Your task to perform on an android device: open app "Microsoft Excel" (install if not already installed) and enter user name: "kidnappers@icloud.com" and password: "Bessemerizes" Image 0: 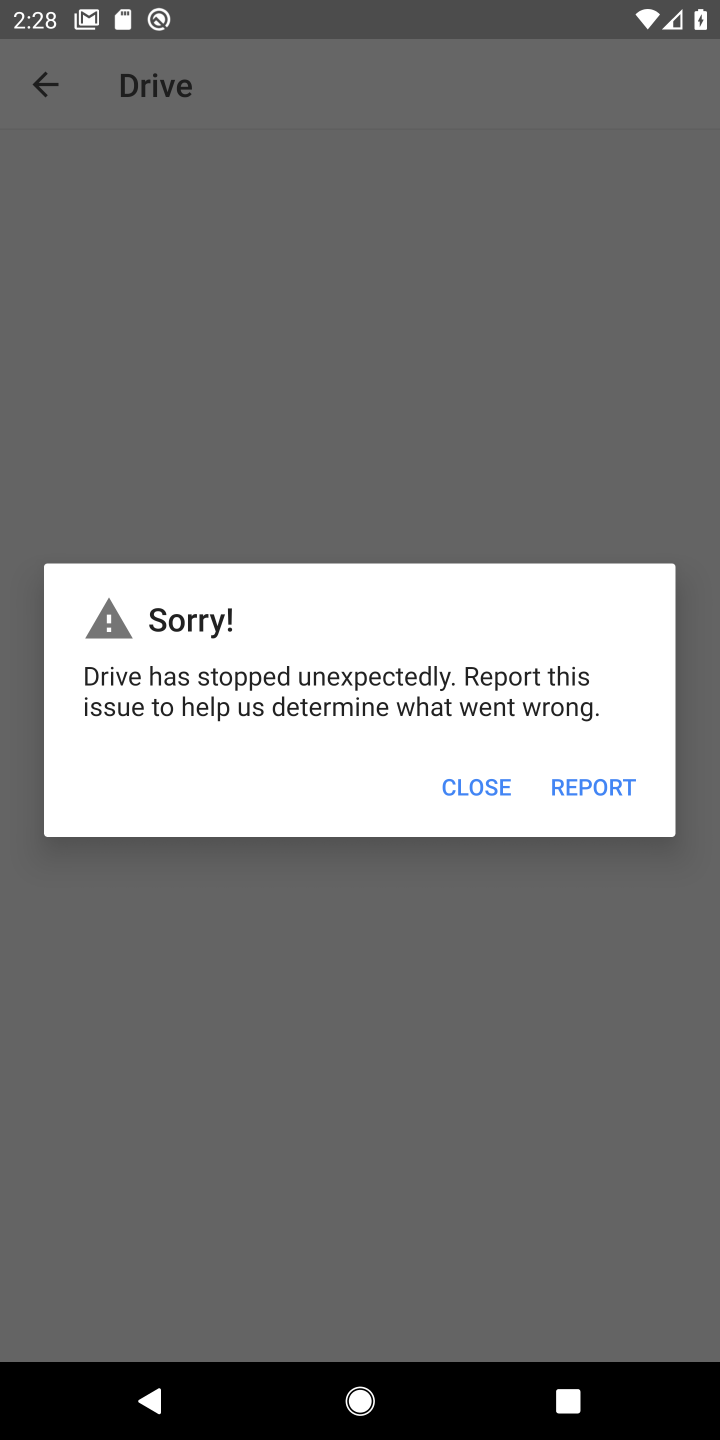
Step 0: press home button
Your task to perform on an android device: open app "Microsoft Excel" (install if not already installed) and enter user name: "kidnappers@icloud.com" and password: "Bessemerizes" Image 1: 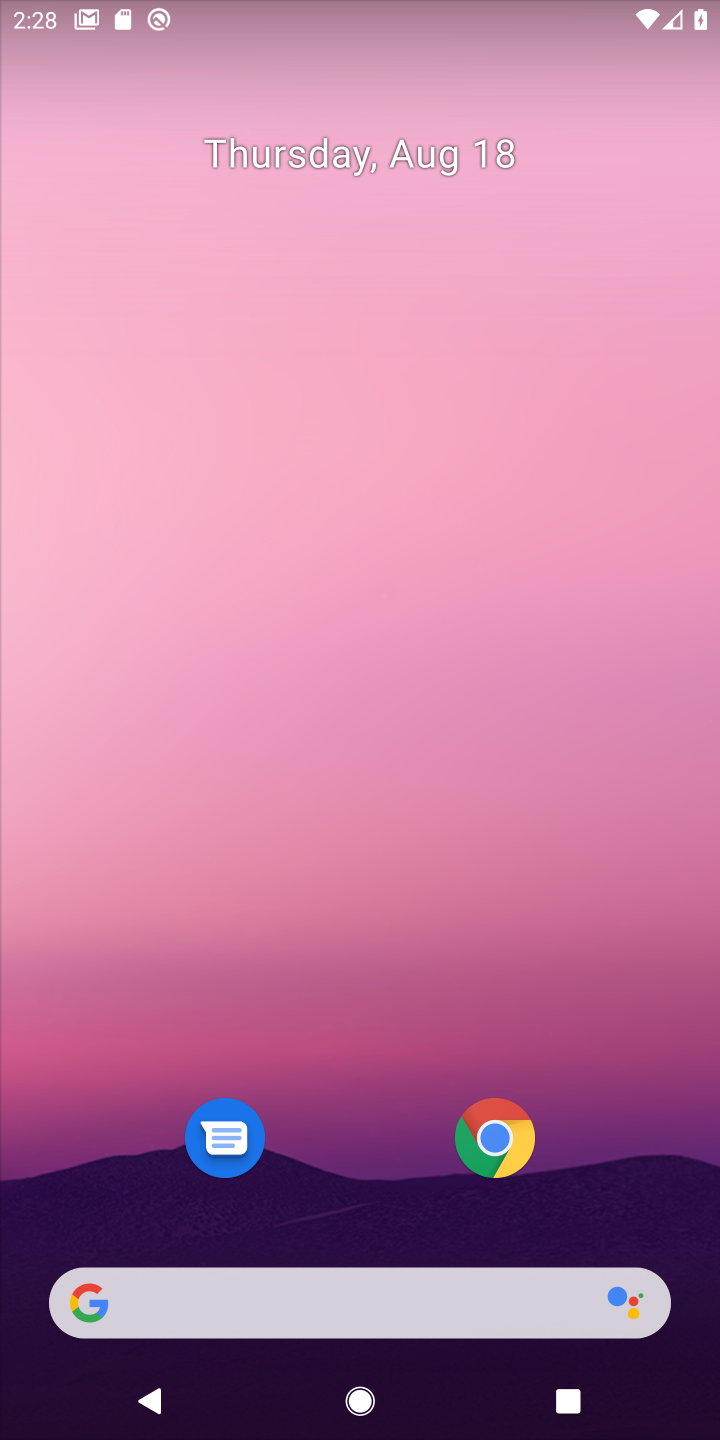
Step 1: drag from (455, 851) to (522, 73)
Your task to perform on an android device: open app "Microsoft Excel" (install if not already installed) and enter user name: "kidnappers@icloud.com" and password: "Bessemerizes" Image 2: 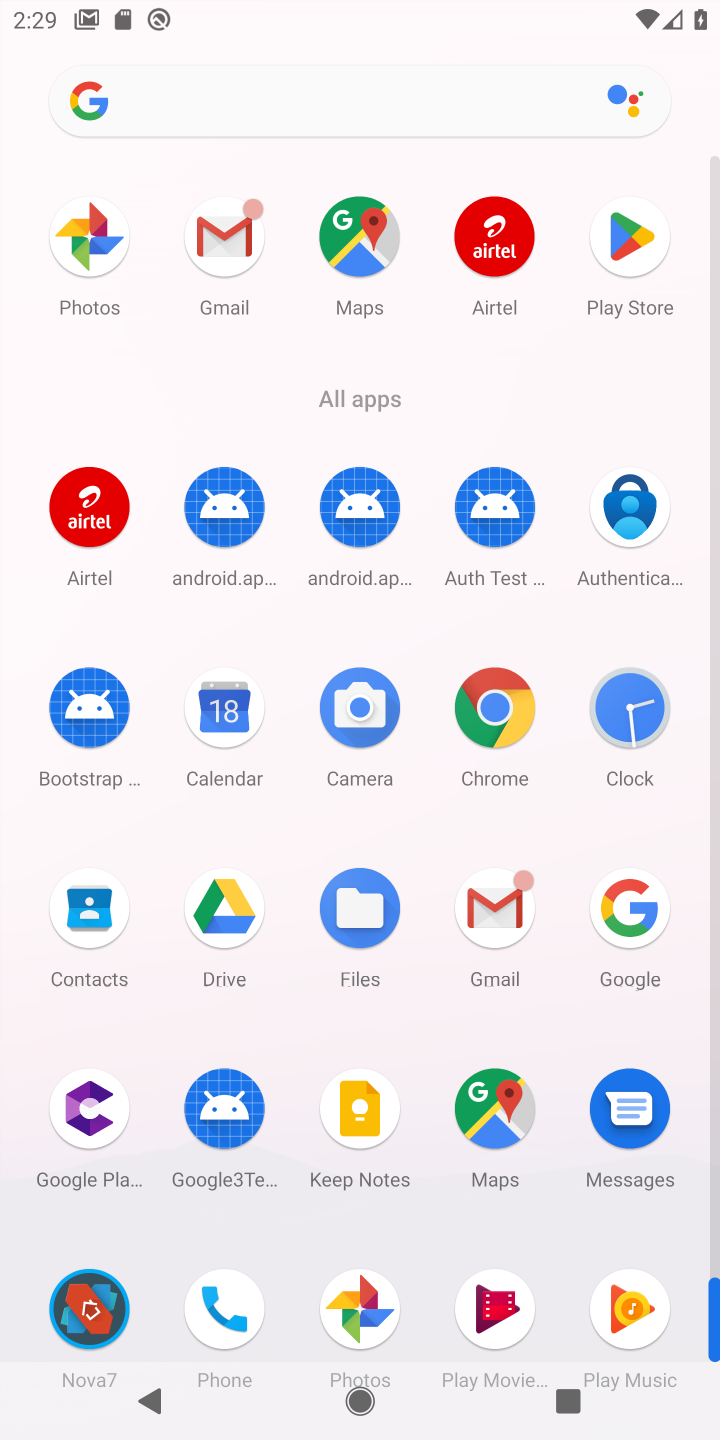
Step 2: click (638, 258)
Your task to perform on an android device: open app "Microsoft Excel" (install if not already installed) and enter user name: "kidnappers@icloud.com" and password: "Bessemerizes" Image 3: 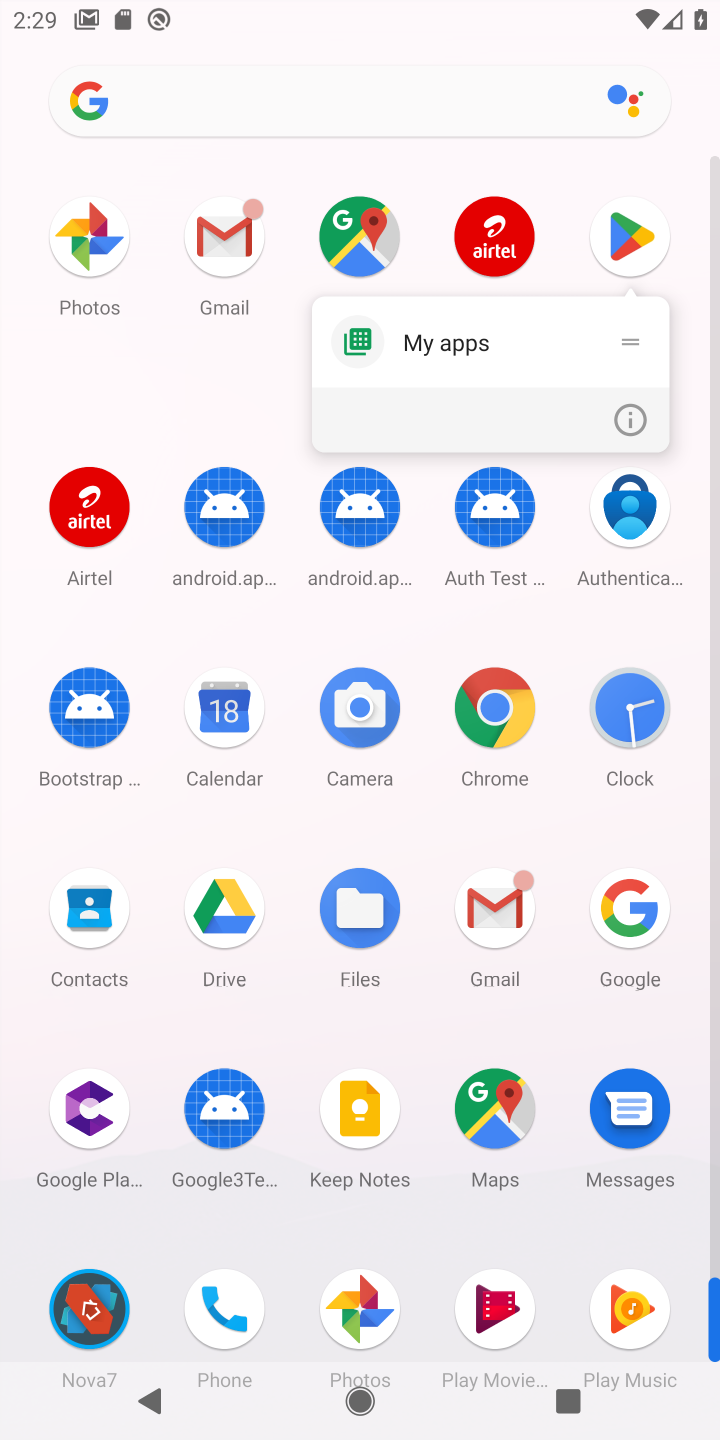
Step 3: click (649, 259)
Your task to perform on an android device: open app "Microsoft Excel" (install if not already installed) and enter user name: "kidnappers@icloud.com" and password: "Bessemerizes" Image 4: 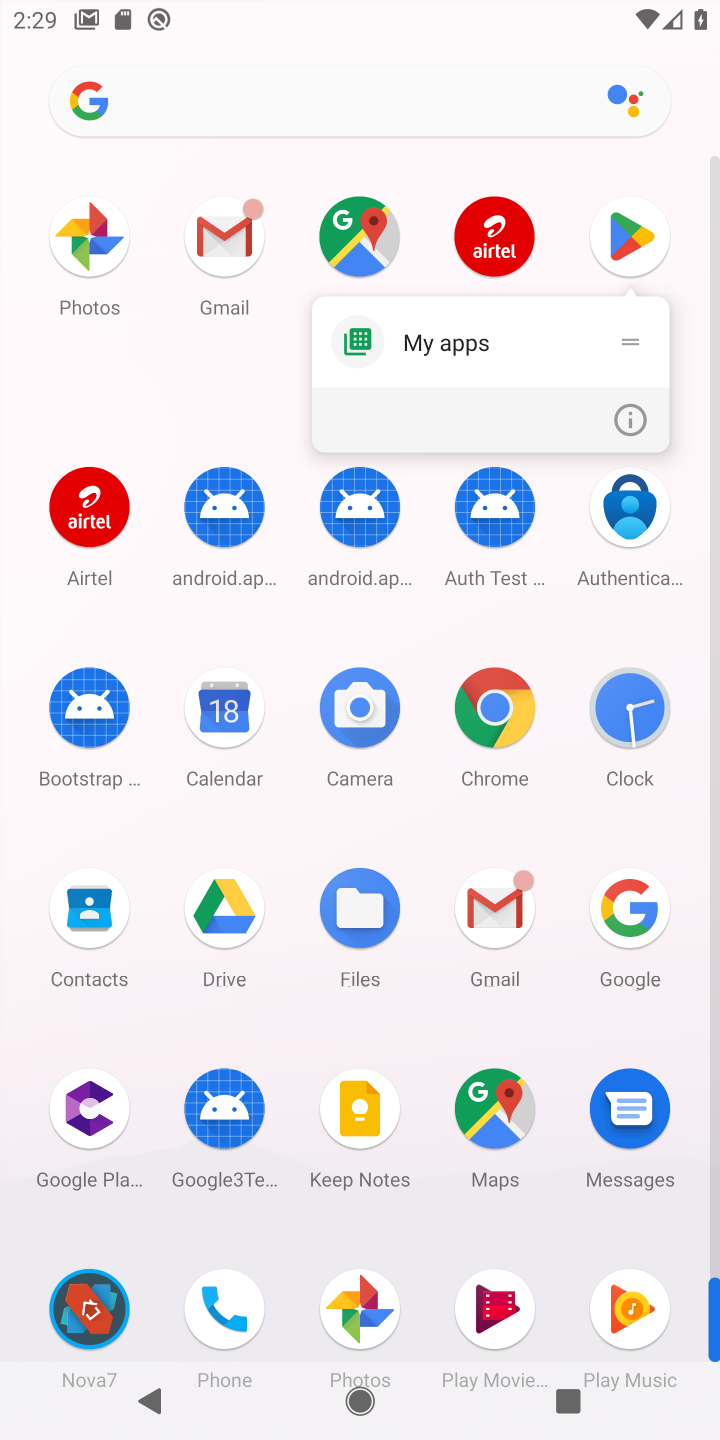
Step 4: click (647, 255)
Your task to perform on an android device: open app "Microsoft Excel" (install if not already installed) and enter user name: "kidnappers@icloud.com" and password: "Bessemerizes" Image 5: 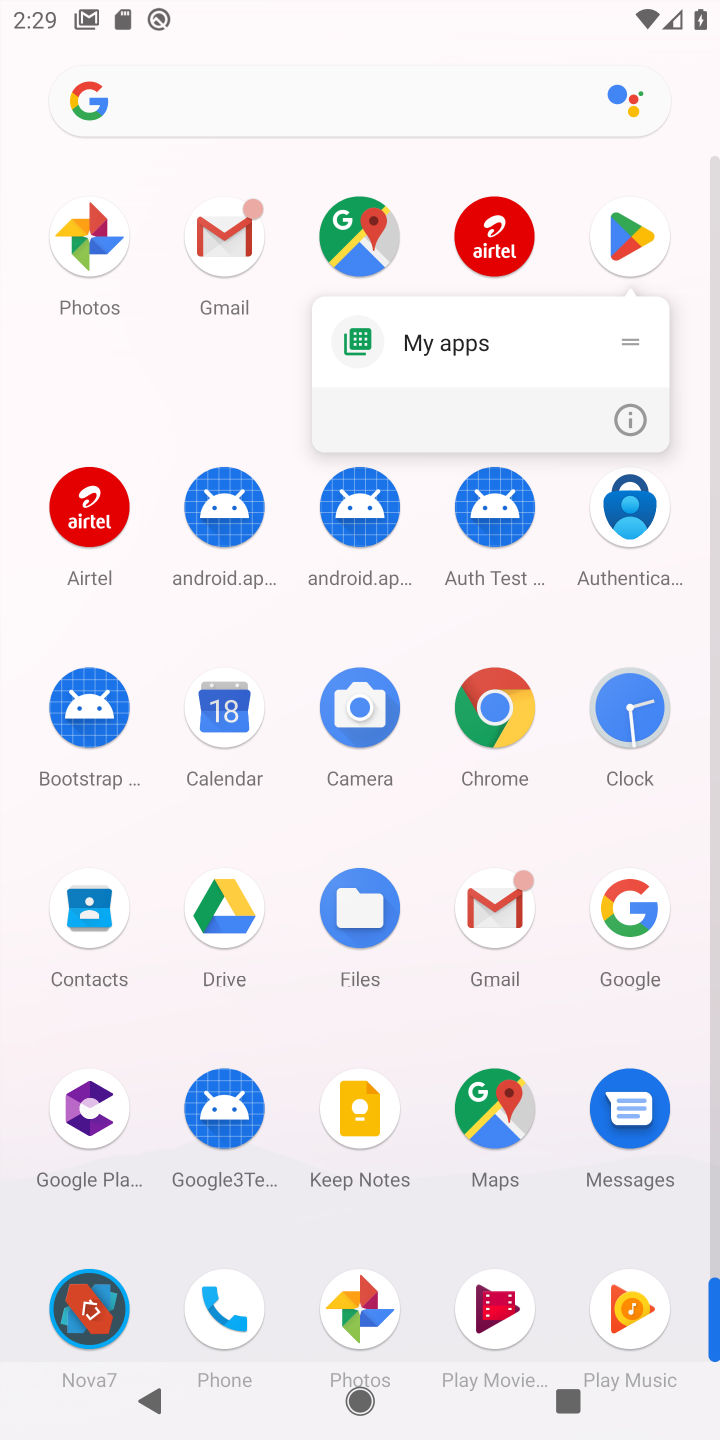
Step 5: click (647, 255)
Your task to perform on an android device: open app "Microsoft Excel" (install if not already installed) and enter user name: "kidnappers@icloud.com" and password: "Bessemerizes" Image 6: 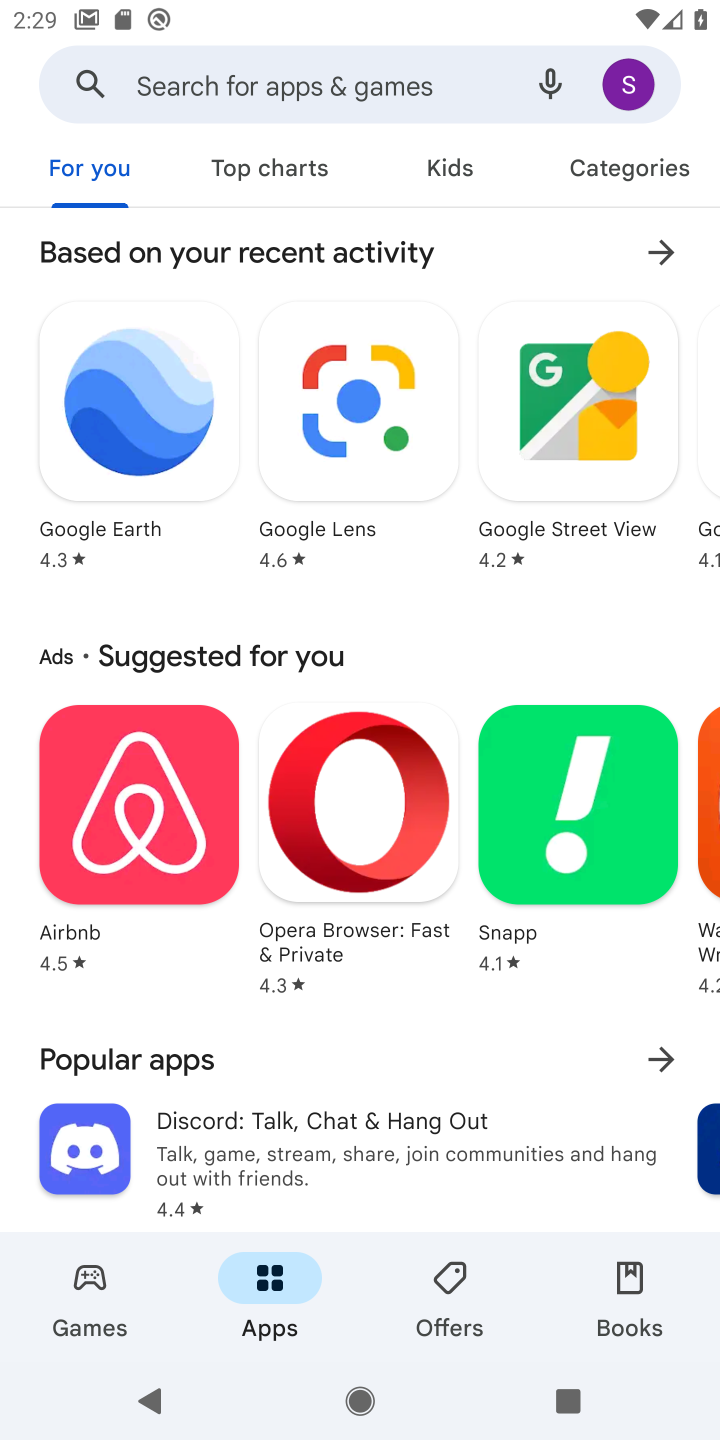
Step 6: click (376, 86)
Your task to perform on an android device: open app "Microsoft Excel" (install if not already installed) and enter user name: "kidnappers@icloud.com" and password: "Bessemerizes" Image 7: 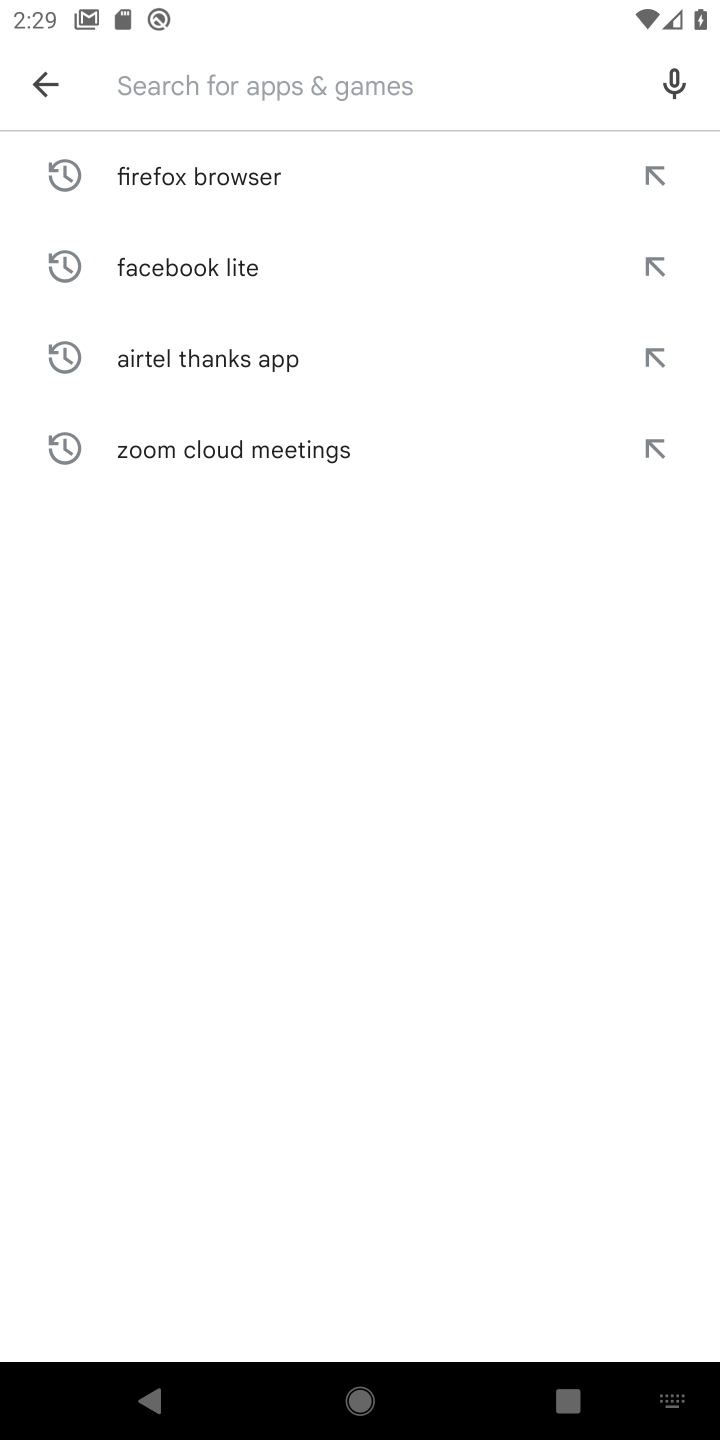
Step 7: type "Microsoft Excel"
Your task to perform on an android device: open app "Microsoft Excel" (install if not already installed) and enter user name: "kidnappers@icloud.com" and password: "Bessemerizes" Image 8: 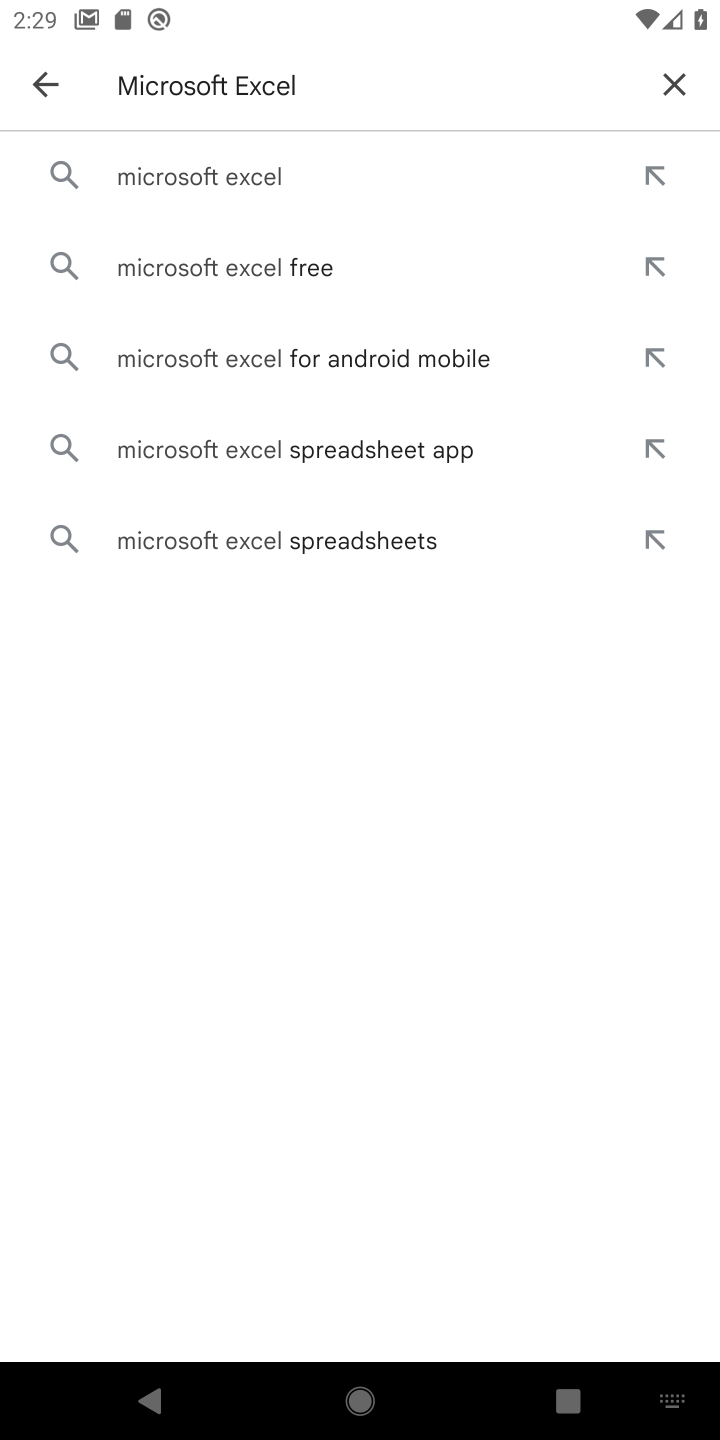
Step 8: click (200, 191)
Your task to perform on an android device: open app "Microsoft Excel" (install if not already installed) and enter user name: "kidnappers@icloud.com" and password: "Bessemerizes" Image 9: 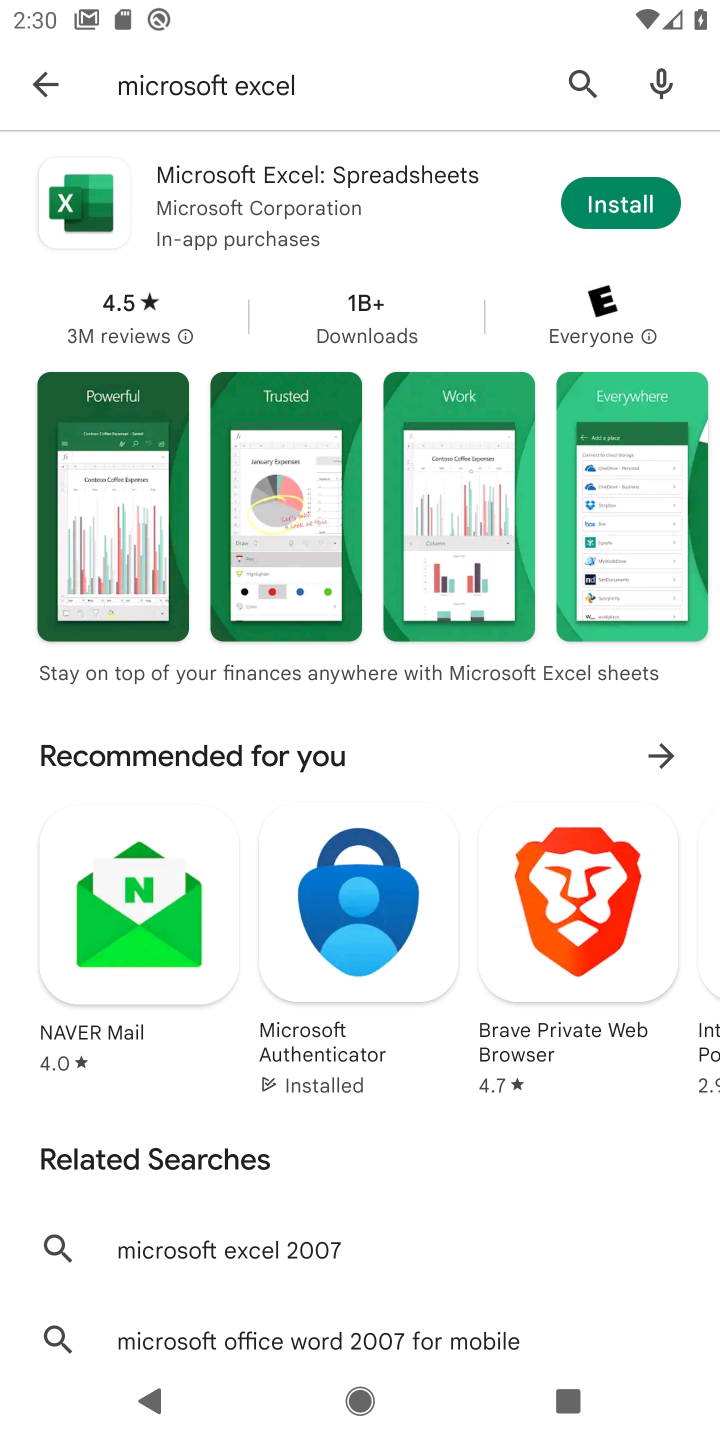
Step 9: click (619, 213)
Your task to perform on an android device: open app "Microsoft Excel" (install if not already installed) and enter user name: "kidnappers@icloud.com" and password: "Bessemerizes" Image 10: 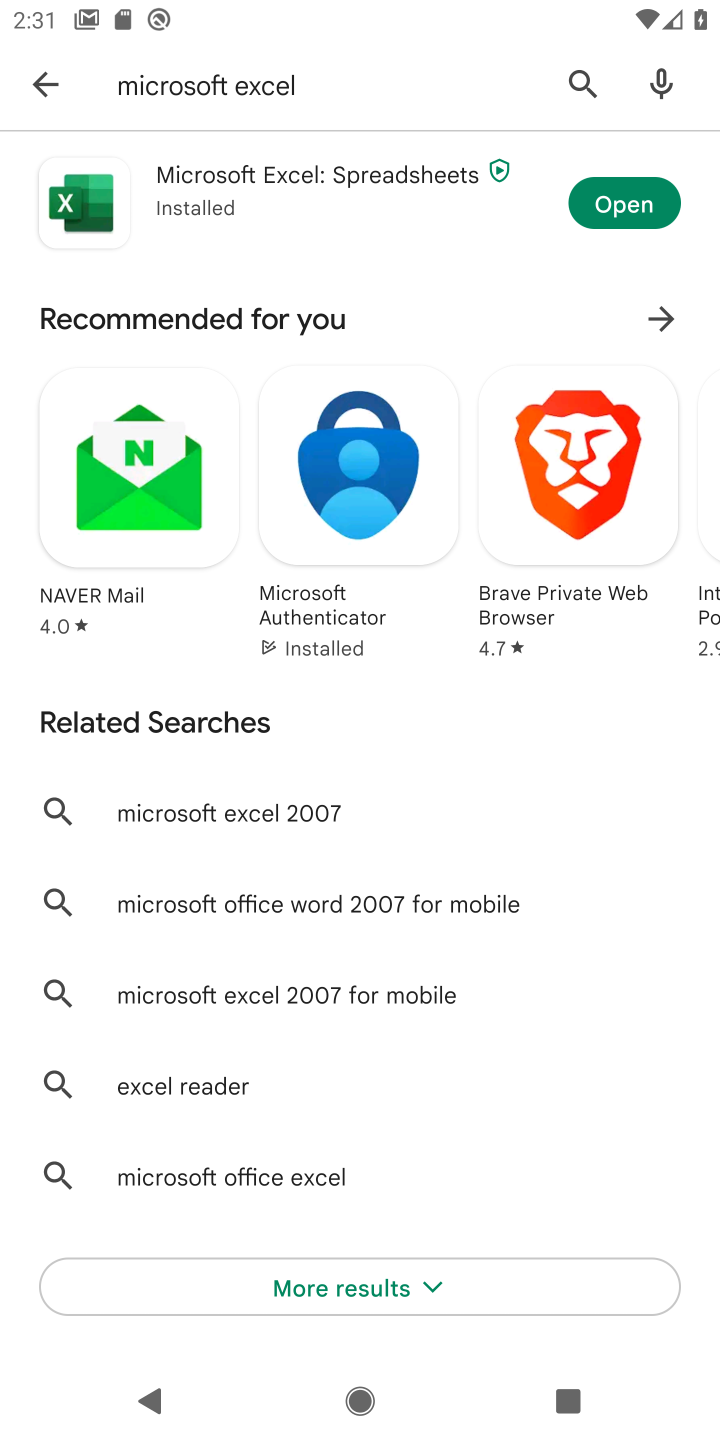
Step 10: click (656, 210)
Your task to perform on an android device: open app "Microsoft Excel" (install if not already installed) and enter user name: "kidnappers@icloud.com" and password: "Bessemerizes" Image 11: 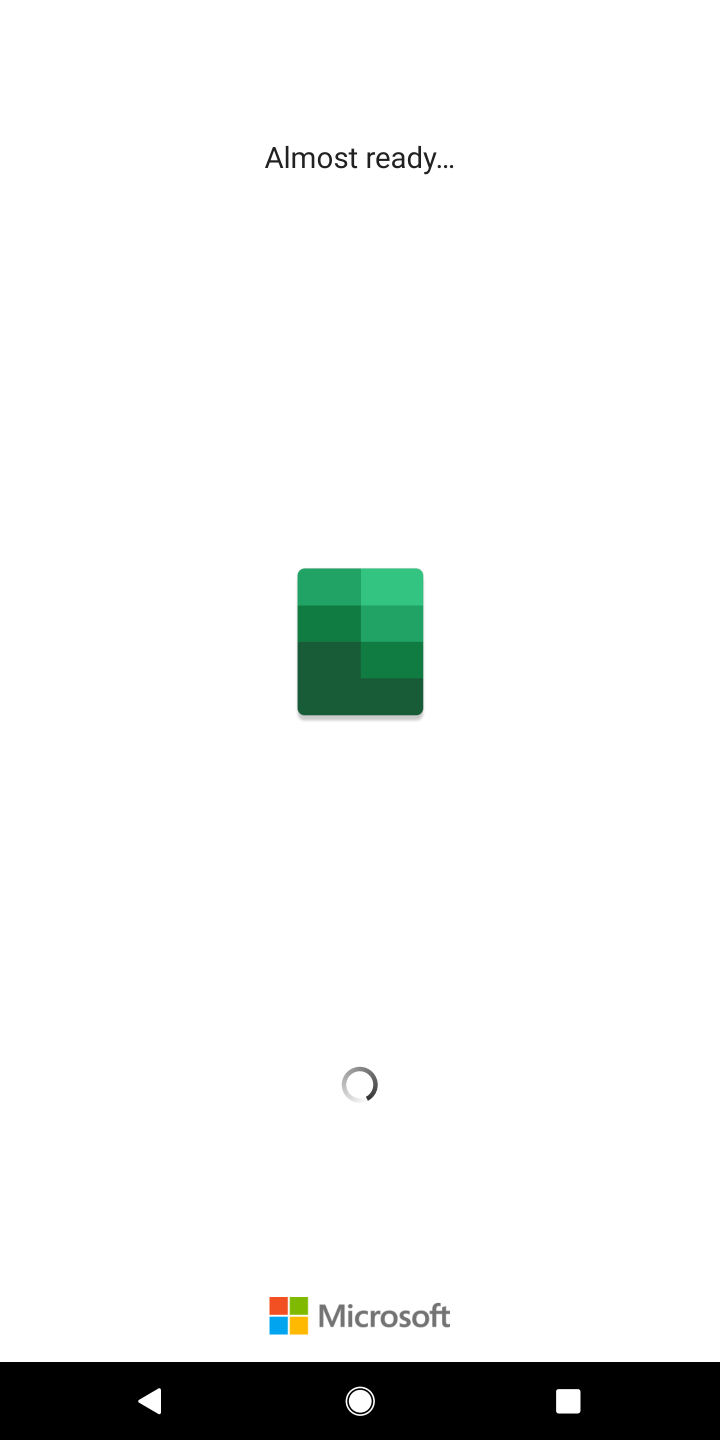
Step 11: task complete